Your task to perform on an android device: Open sound settings Image 0: 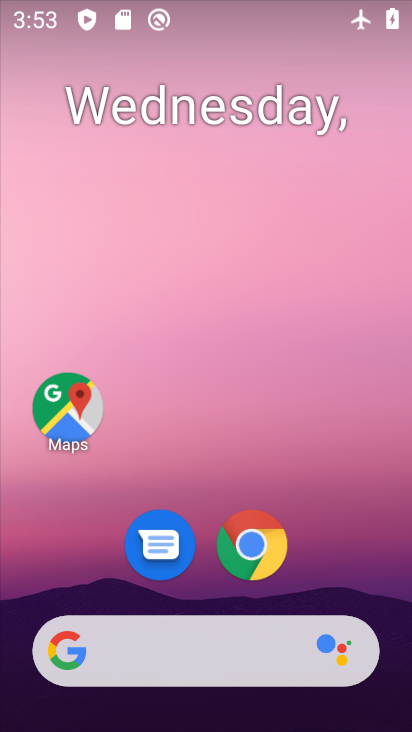
Step 0: drag from (352, 524) to (336, 106)
Your task to perform on an android device: Open sound settings Image 1: 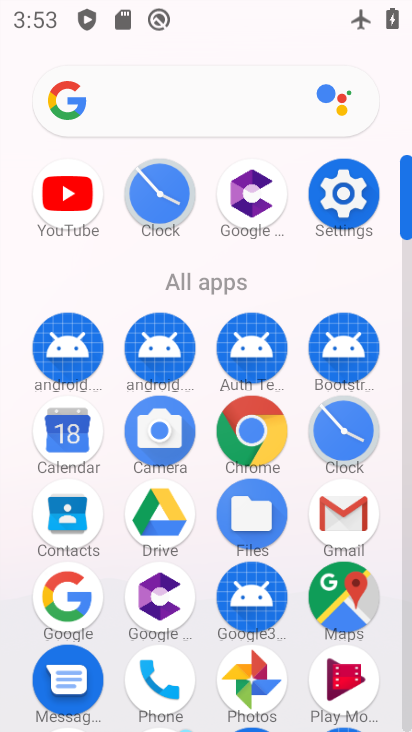
Step 1: click (344, 193)
Your task to perform on an android device: Open sound settings Image 2: 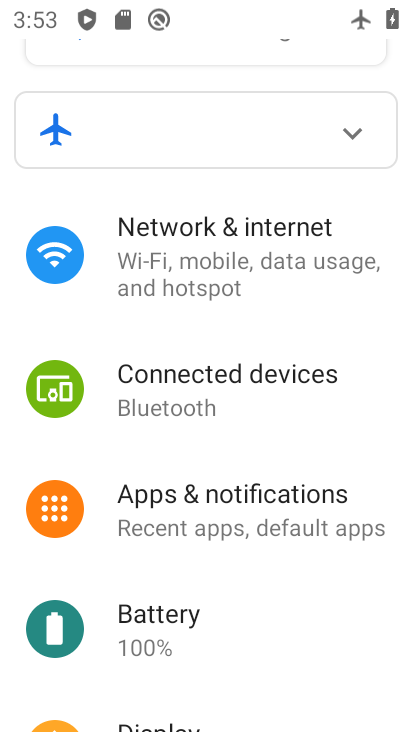
Step 2: drag from (193, 554) to (231, 404)
Your task to perform on an android device: Open sound settings Image 3: 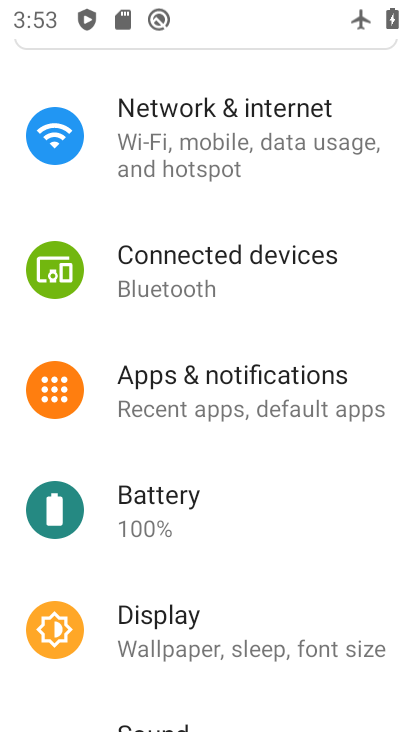
Step 3: drag from (197, 603) to (262, 465)
Your task to perform on an android device: Open sound settings Image 4: 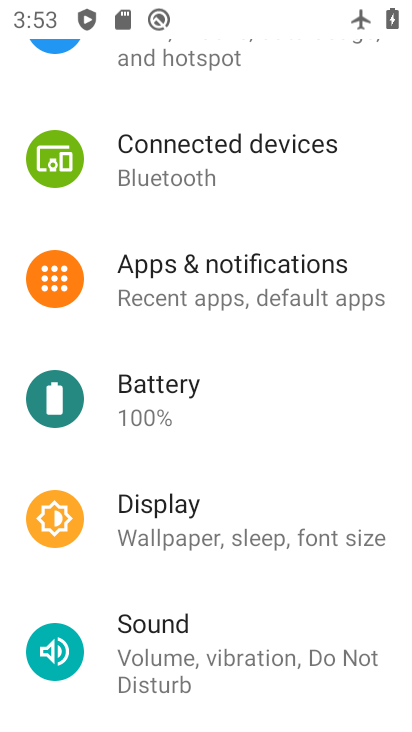
Step 4: click (185, 630)
Your task to perform on an android device: Open sound settings Image 5: 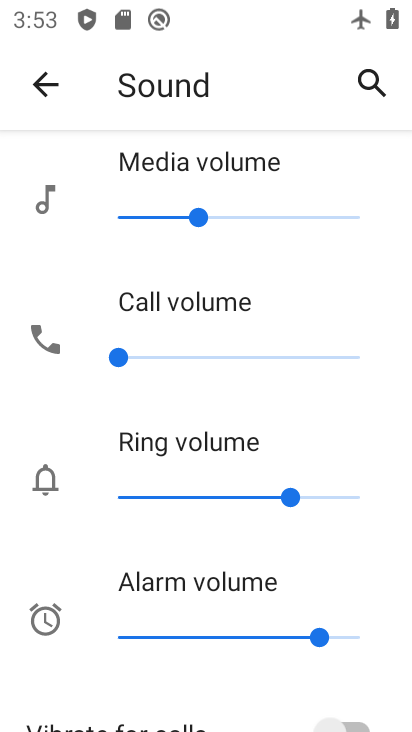
Step 5: task complete